Your task to perform on an android device: Show me recent news Image 0: 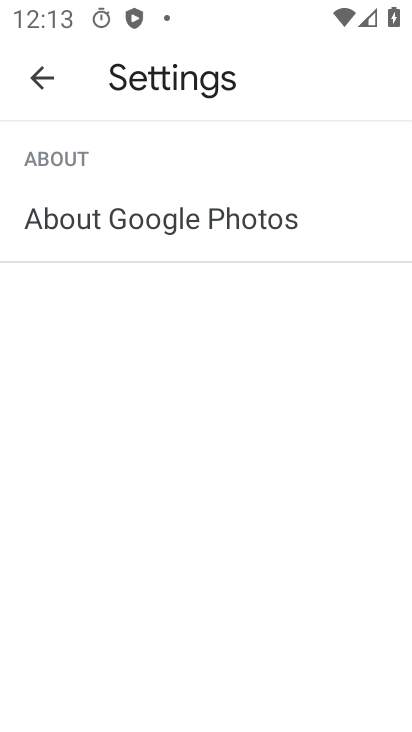
Step 0: press home button
Your task to perform on an android device: Show me recent news Image 1: 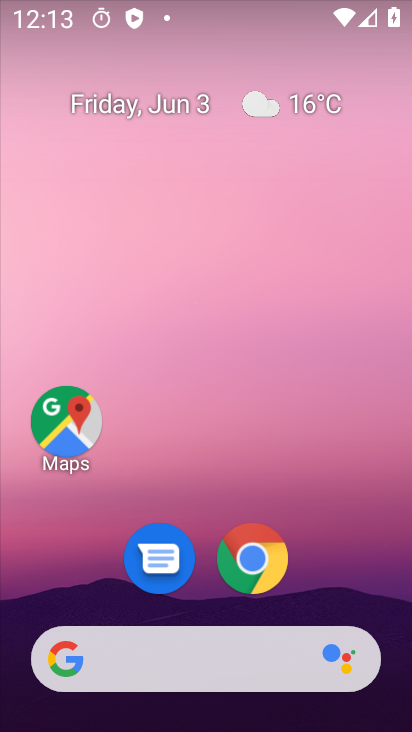
Step 1: task complete